Your task to perform on an android device: Open Google Chrome Image 0: 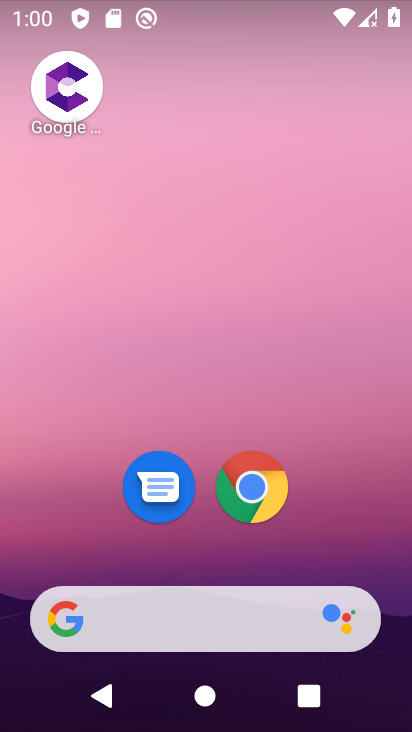
Step 0: click (259, 487)
Your task to perform on an android device: Open Google Chrome Image 1: 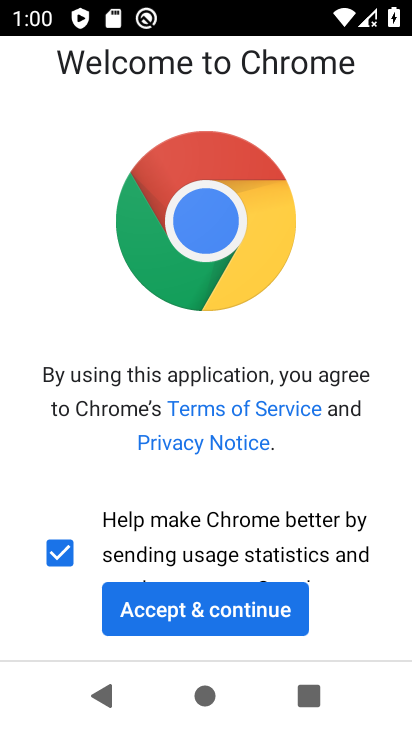
Step 1: click (249, 604)
Your task to perform on an android device: Open Google Chrome Image 2: 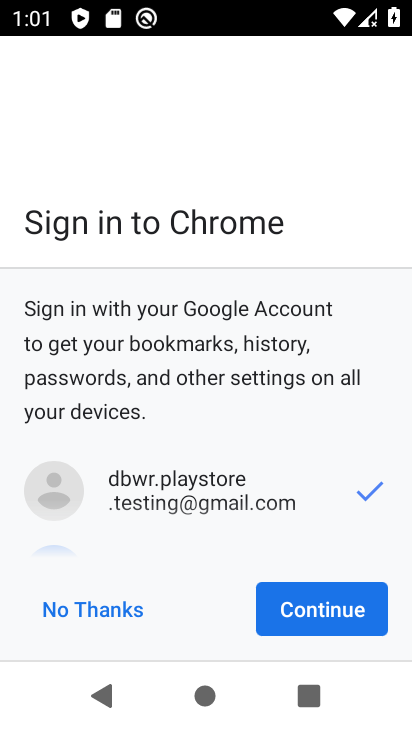
Step 2: click (310, 612)
Your task to perform on an android device: Open Google Chrome Image 3: 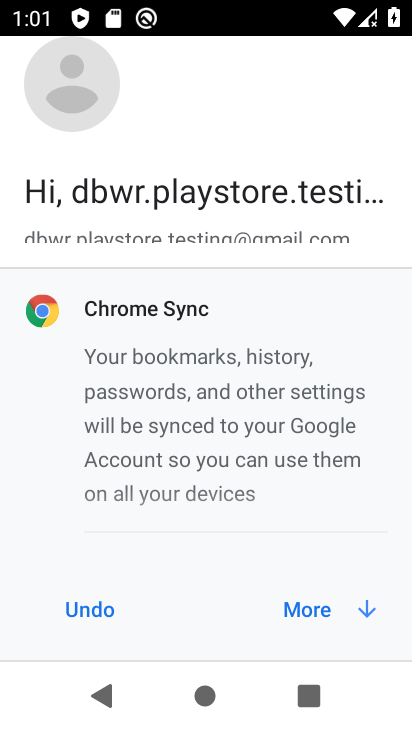
Step 3: click (310, 612)
Your task to perform on an android device: Open Google Chrome Image 4: 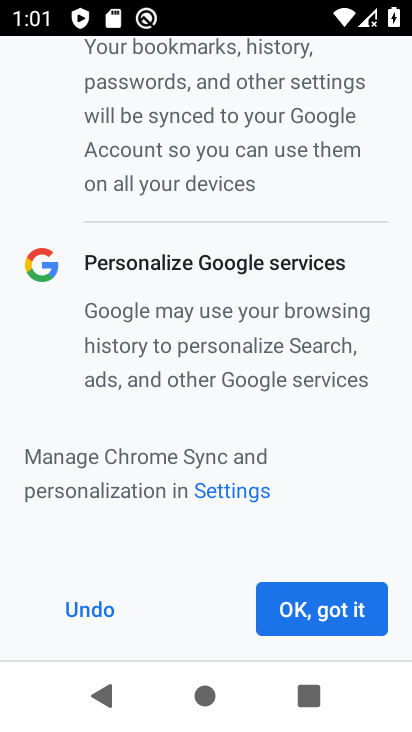
Step 4: click (310, 612)
Your task to perform on an android device: Open Google Chrome Image 5: 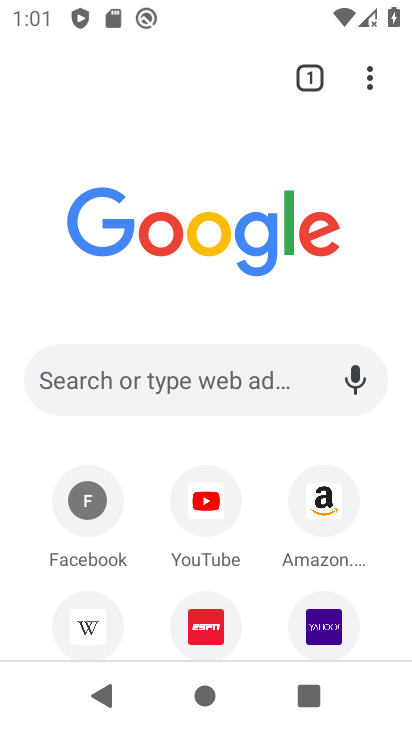
Step 5: task complete